Your task to perform on an android device: open chrome and create a bookmark for the current page Image 0: 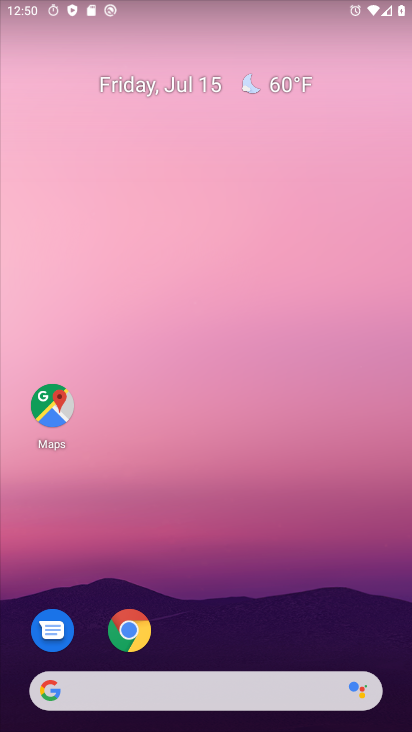
Step 0: click (125, 637)
Your task to perform on an android device: open chrome and create a bookmark for the current page Image 1: 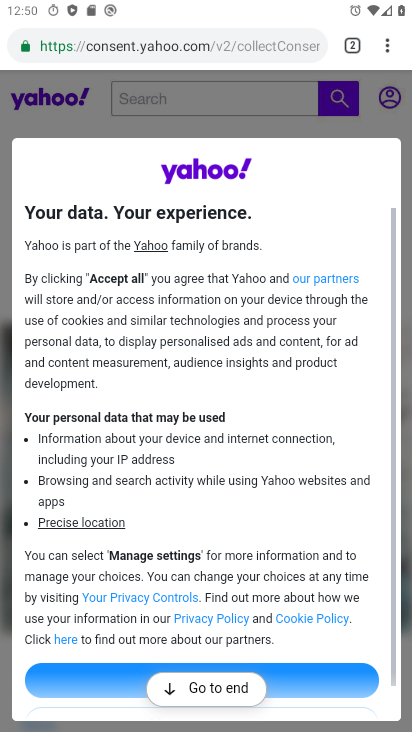
Step 1: click (389, 43)
Your task to perform on an android device: open chrome and create a bookmark for the current page Image 2: 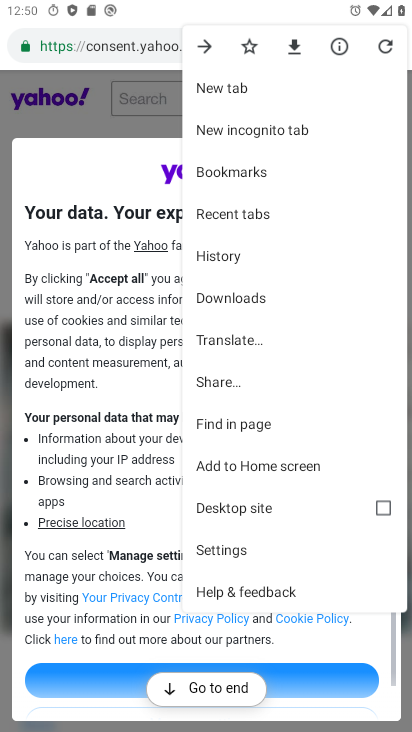
Step 2: click (255, 51)
Your task to perform on an android device: open chrome and create a bookmark for the current page Image 3: 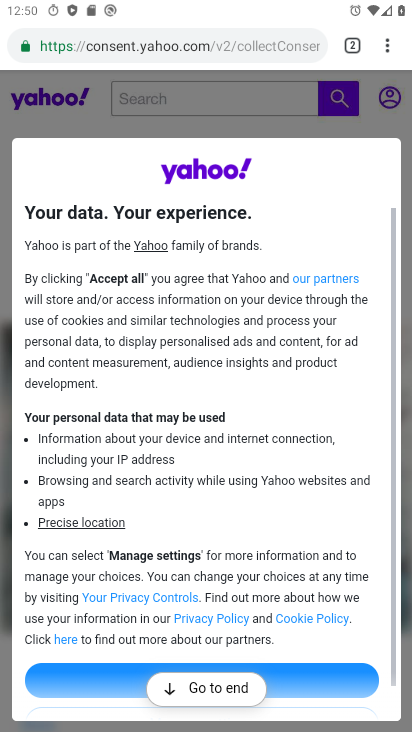
Step 3: task complete